Your task to perform on an android device: Open calendar and show me the third week of next month Image 0: 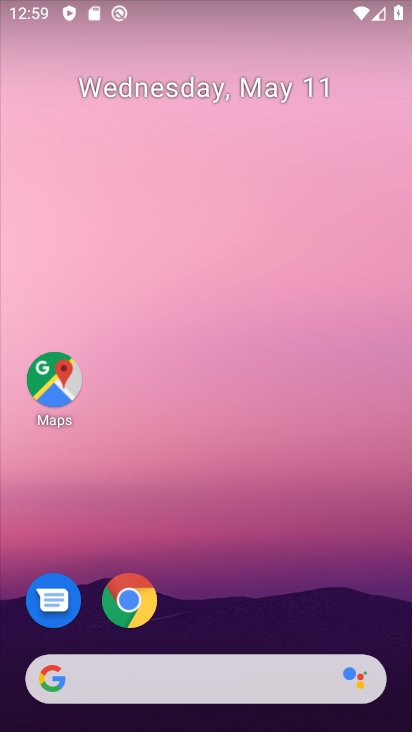
Step 0: drag from (286, 585) to (276, 213)
Your task to perform on an android device: Open calendar and show me the third week of next month Image 1: 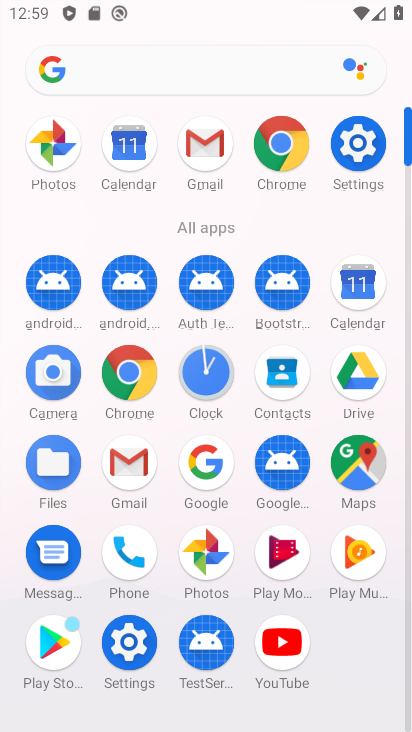
Step 1: click (364, 283)
Your task to perform on an android device: Open calendar and show me the third week of next month Image 2: 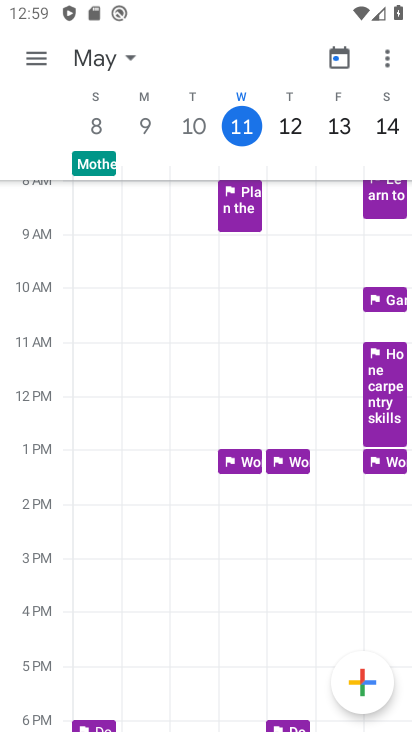
Step 2: click (37, 61)
Your task to perform on an android device: Open calendar and show me the third week of next month Image 3: 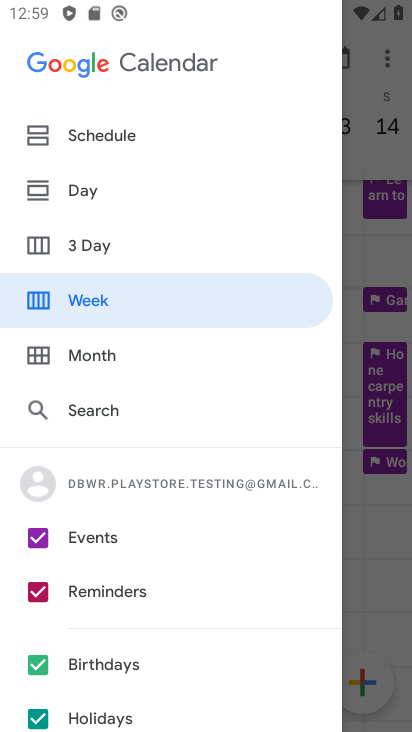
Step 3: click (110, 348)
Your task to perform on an android device: Open calendar and show me the third week of next month Image 4: 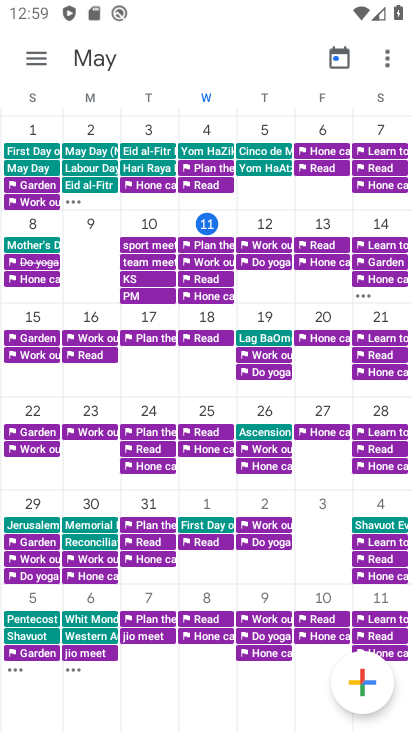
Step 4: task complete